Your task to perform on an android device: Go to display settings Image 0: 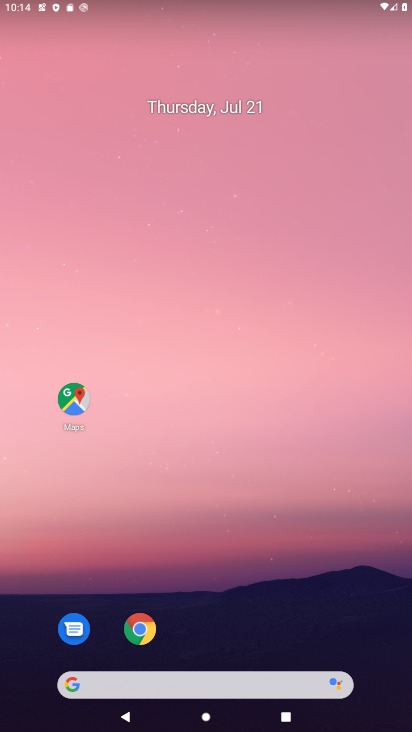
Step 0: press home button
Your task to perform on an android device: Go to display settings Image 1: 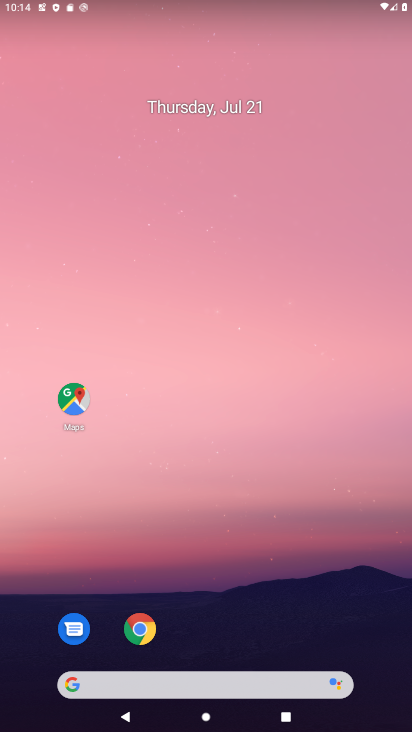
Step 1: drag from (296, 620) to (163, 77)
Your task to perform on an android device: Go to display settings Image 2: 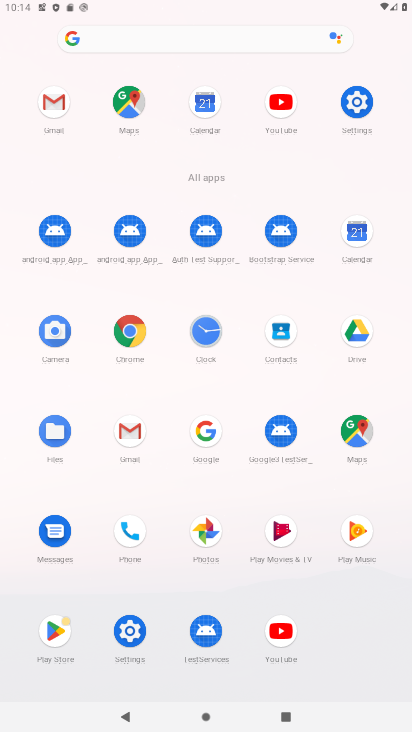
Step 2: click (360, 111)
Your task to perform on an android device: Go to display settings Image 3: 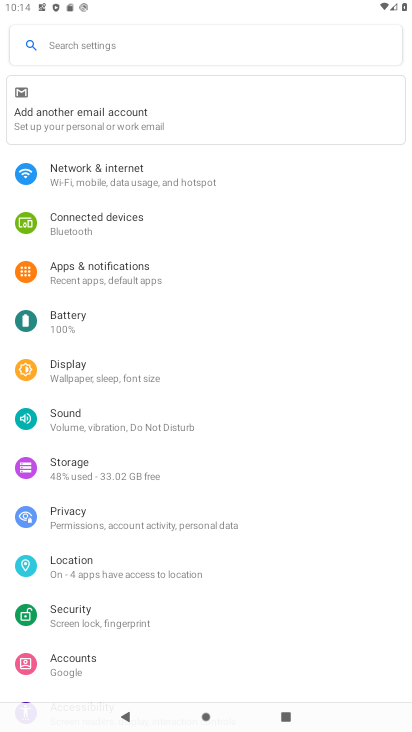
Step 3: click (75, 367)
Your task to perform on an android device: Go to display settings Image 4: 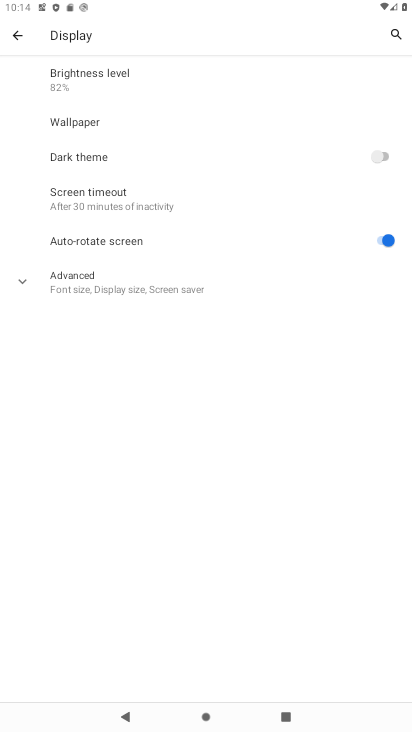
Step 4: task complete